Your task to perform on an android device: delete location history Image 0: 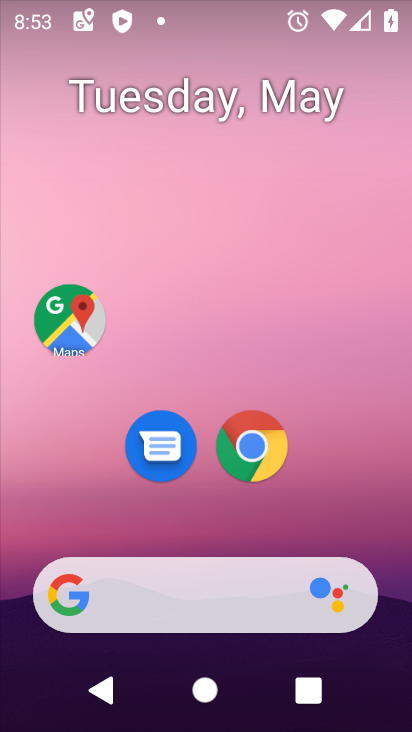
Step 0: click (75, 319)
Your task to perform on an android device: delete location history Image 1: 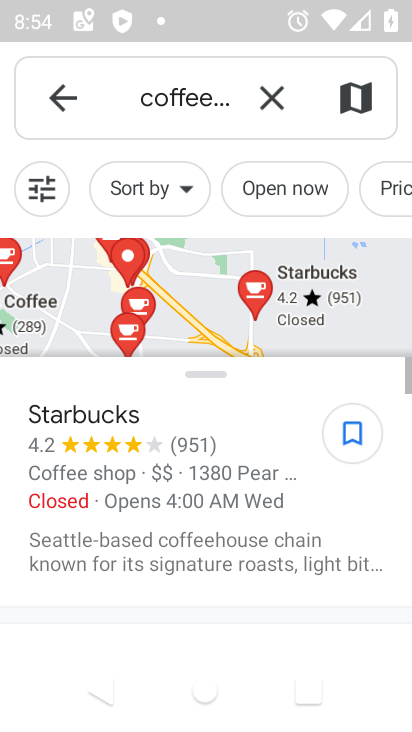
Step 1: click (274, 100)
Your task to perform on an android device: delete location history Image 2: 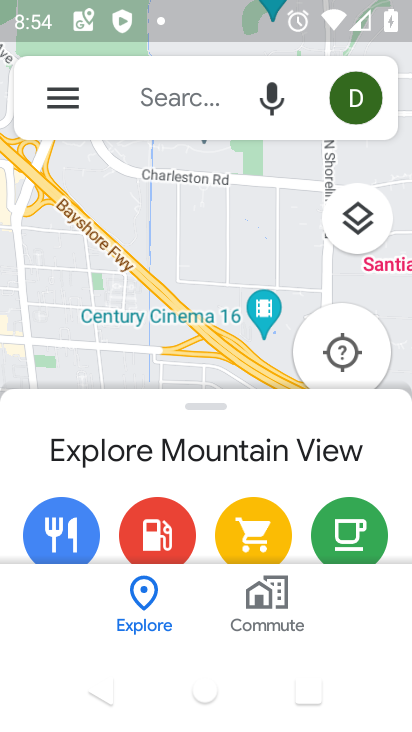
Step 2: click (68, 99)
Your task to perform on an android device: delete location history Image 3: 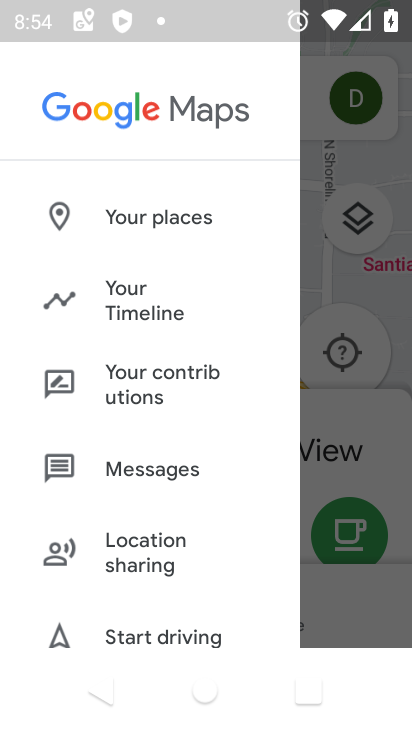
Step 3: click (133, 313)
Your task to perform on an android device: delete location history Image 4: 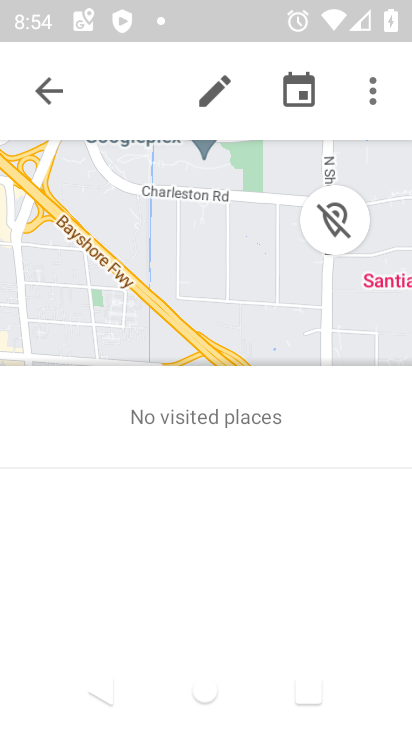
Step 4: click (373, 97)
Your task to perform on an android device: delete location history Image 5: 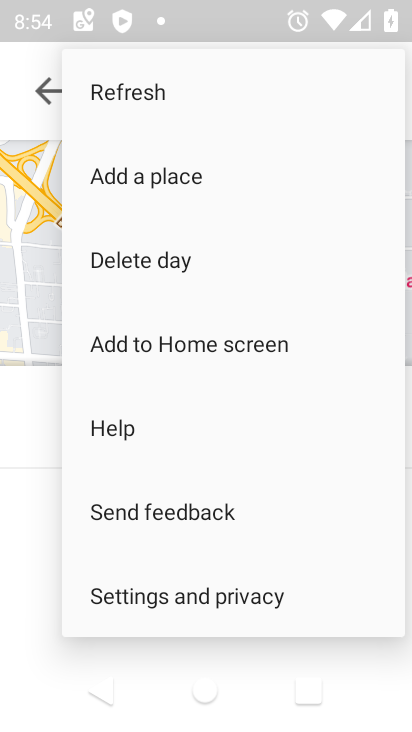
Step 5: click (192, 599)
Your task to perform on an android device: delete location history Image 6: 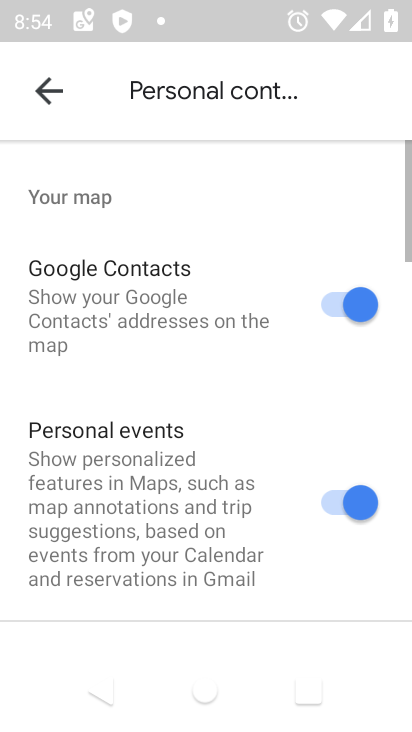
Step 6: drag from (177, 559) to (179, 90)
Your task to perform on an android device: delete location history Image 7: 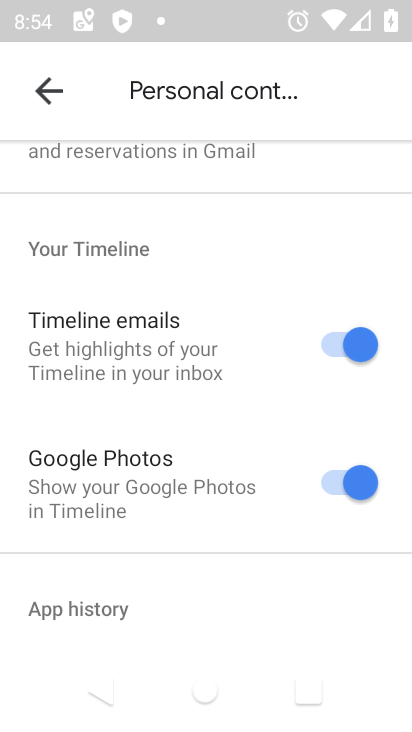
Step 7: drag from (161, 537) to (154, 123)
Your task to perform on an android device: delete location history Image 8: 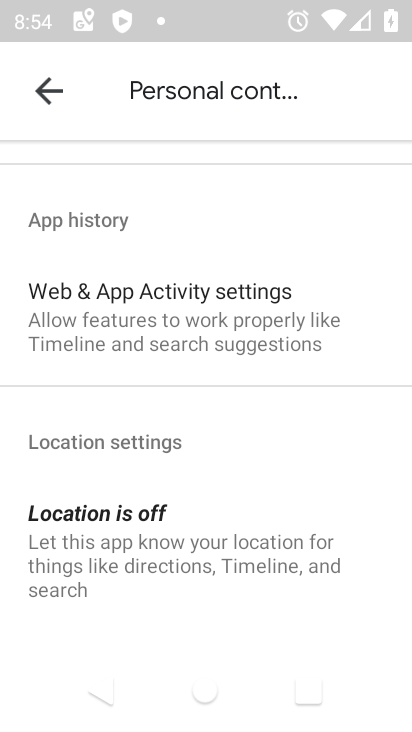
Step 8: drag from (144, 512) to (144, 160)
Your task to perform on an android device: delete location history Image 9: 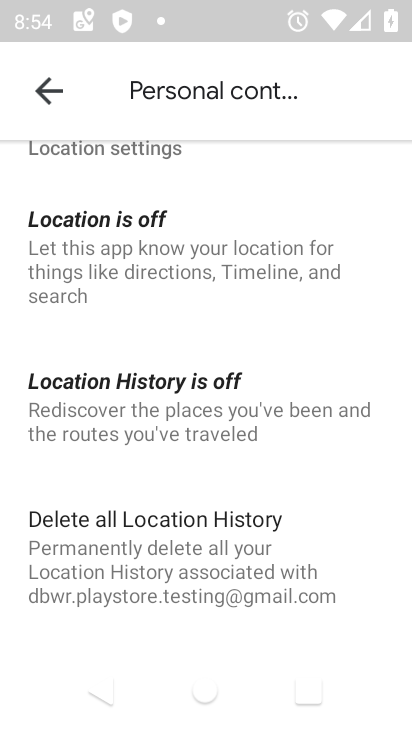
Step 9: click (133, 552)
Your task to perform on an android device: delete location history Image 10: 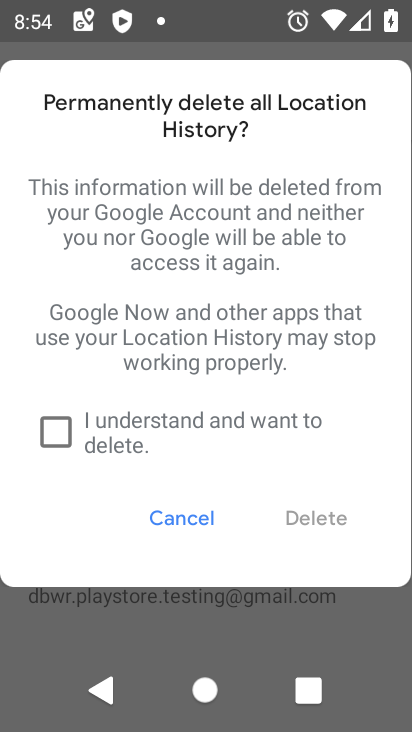
Step 10: click (55, 421)
Your task to perform on an android device: delete location history Image 11: 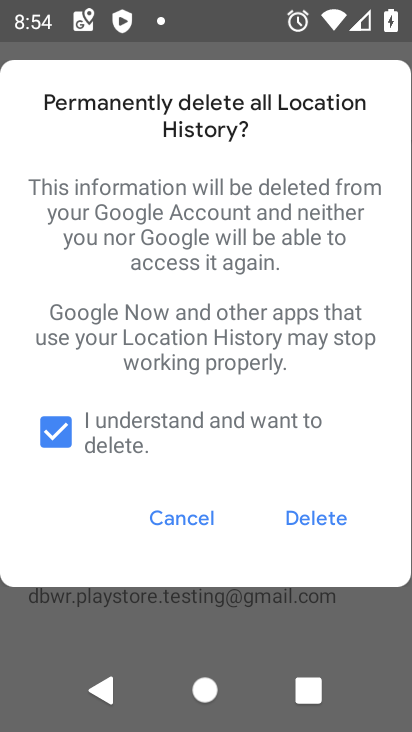
Step 11: click (320, 525)
Your task to perform on an android device: delete location history Image 12: 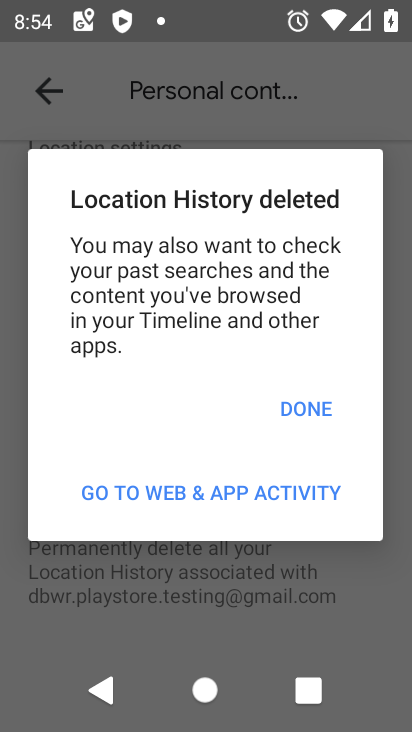
Step 12: click (319, 407)
Your task to perform on an android device: delete location history Image 13: 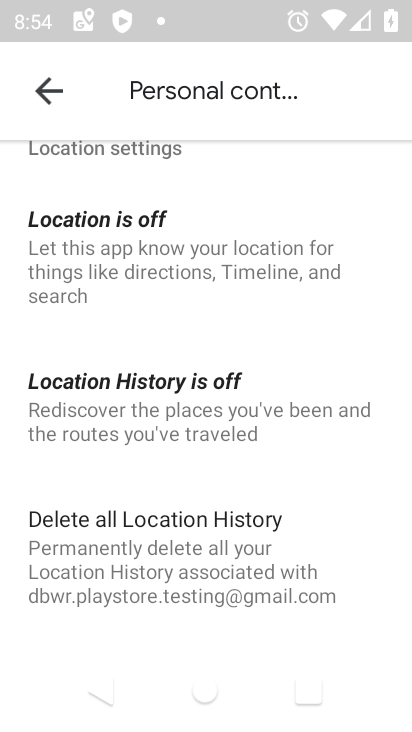
Step 13: task complete